Your task to perform on an android device: open chrome privacy settings Image 0: 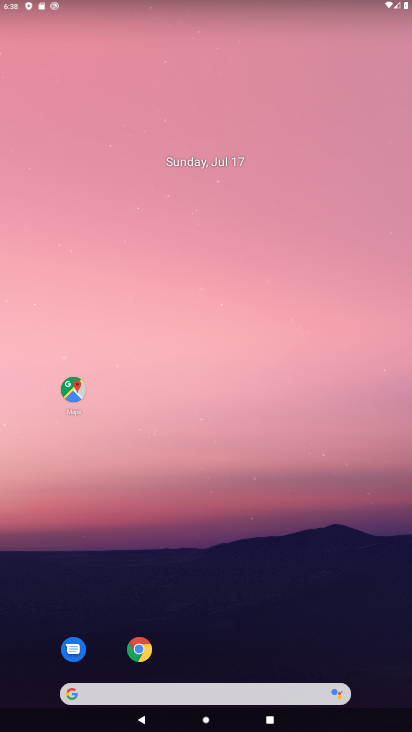
Step 0: click (135, 651)
Your task to perform on an android device: open chrome privacy settings Image 1: 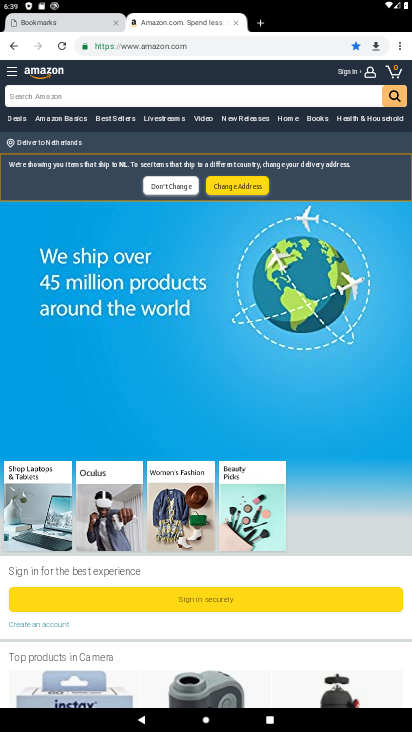
Step 1: click (399, 43)
Your task to perform on an android device: open chrome privacy settings Image 2: 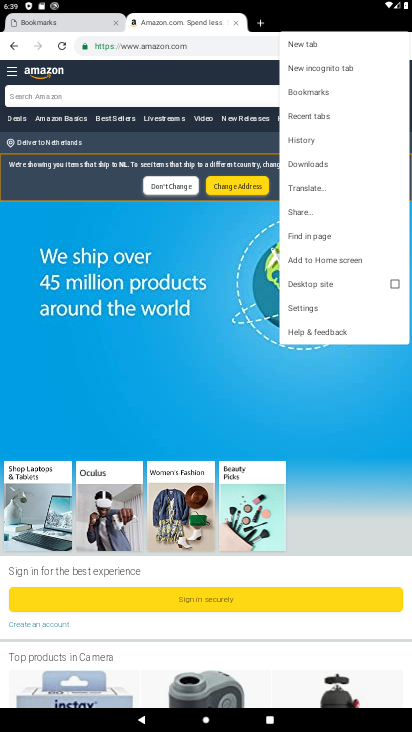
Step 2: click (296, 308)
Your task to perform on an android device: open chrome privacy settings Image 3: 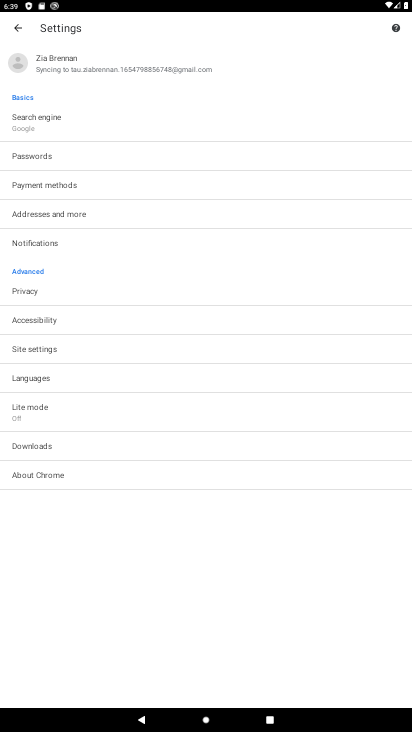
Step 3: click (25, 289)
Your task to perform on an android device: open chrome privacy settings Image 4: 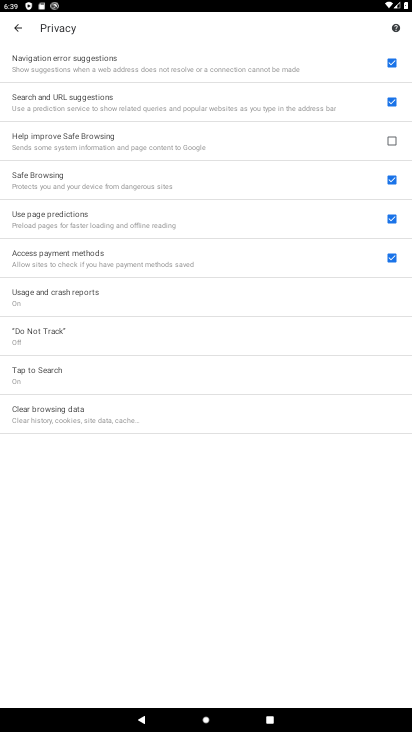
Step 4: task complete